Your task to perform on an android device: toggle translation in the chrome app Image 0: 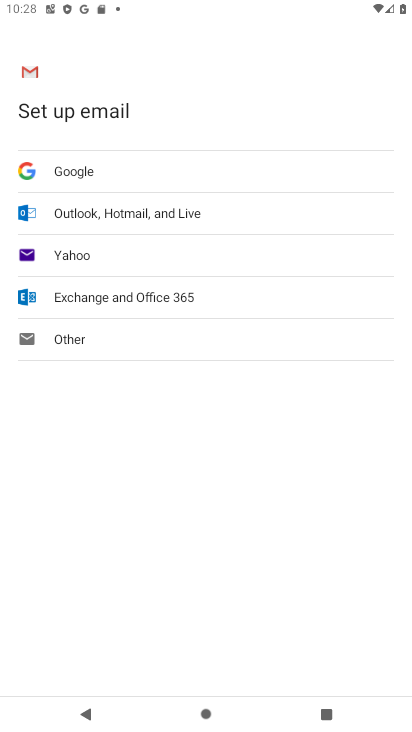
Step 0: press home button
Your task to perform on an android device: toggle translation in the chrome app Image 1: 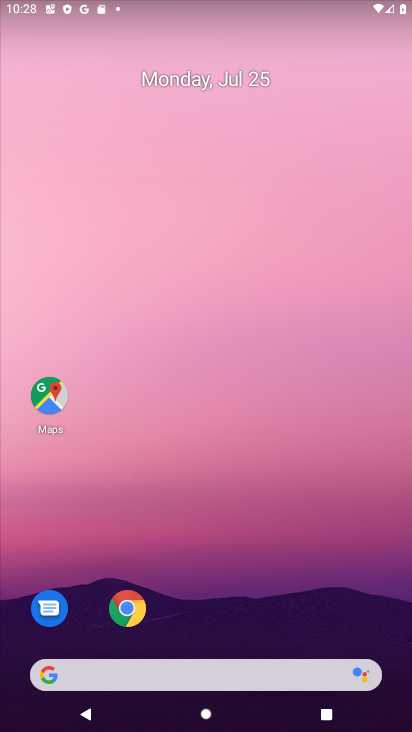
Step 1: drag from (211, 625) to (278, 130)
Your task to perform on an android device: toggle translation in the chrome app Image 2: 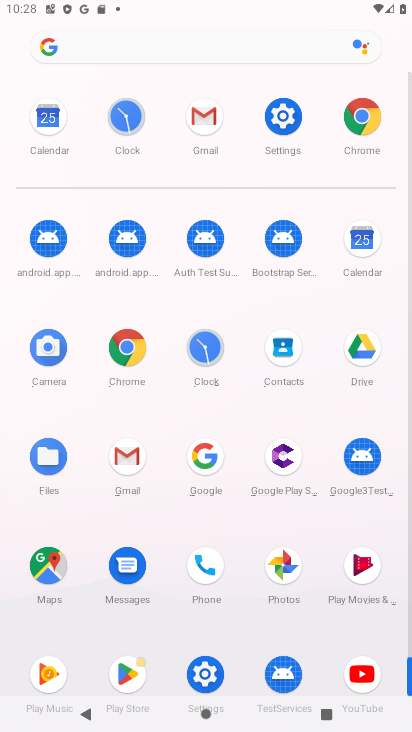
Step 2: click (135, 362)
Your task to perform on an android device: toggle translation in the chrome app Image 3: 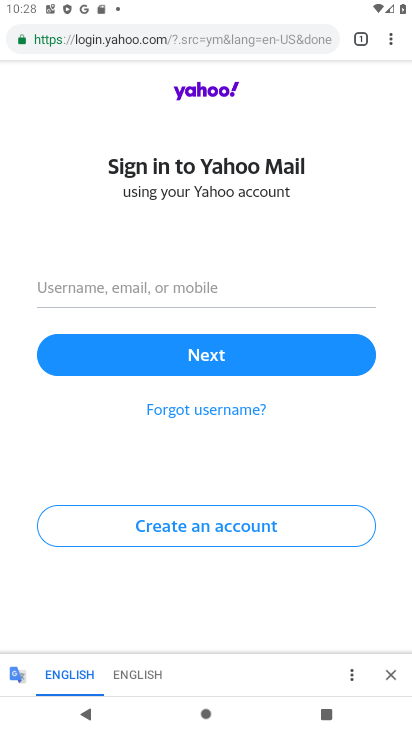
Step 3: click (352, 673)
Your task to perform on an android device: toggle translation in the chrome app Image 4: 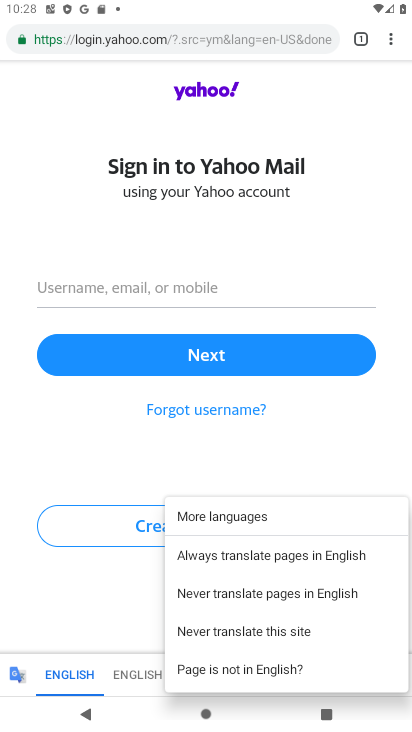
Step 4: click (259, 559)
Your task to perform on an android device: toggle translation in the chrome app Image 5: 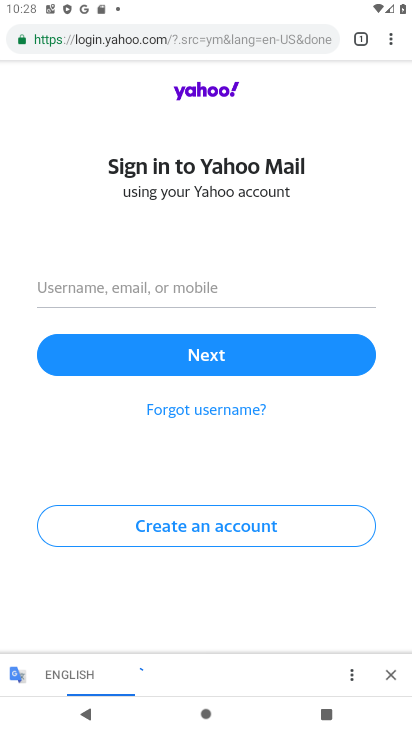
Step 5: task complete